Your task to perform on an android device: toggle javascript in the chrome app Image 0: 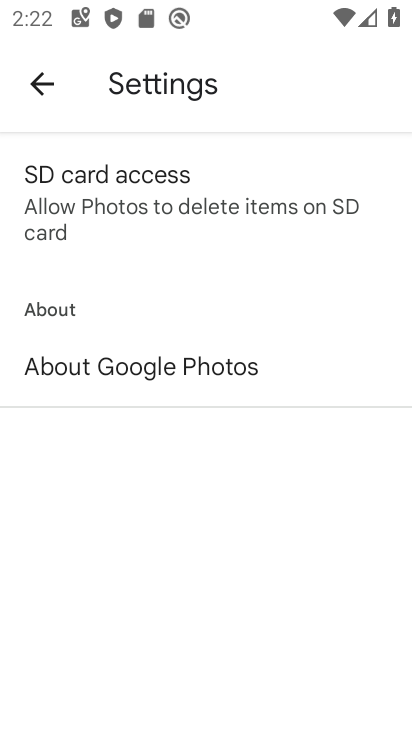
Step 0: press home button
Your task to perform on an android device: toggle javascript in the chrome app Image 1: 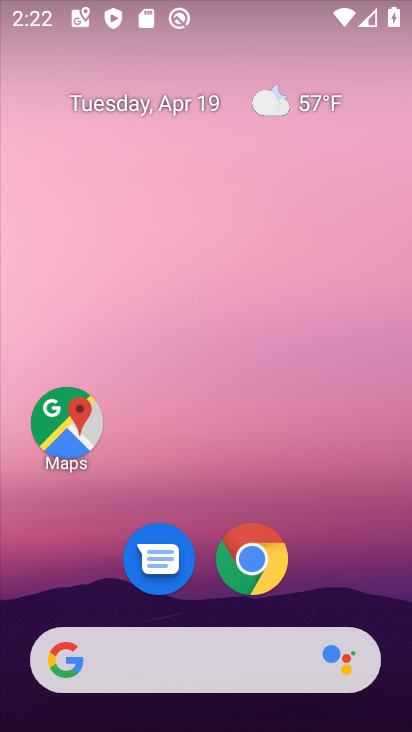
Step 1: click (248, 550)
Your task to perform on an android device: toggle javascript in the chrome app Image 2: 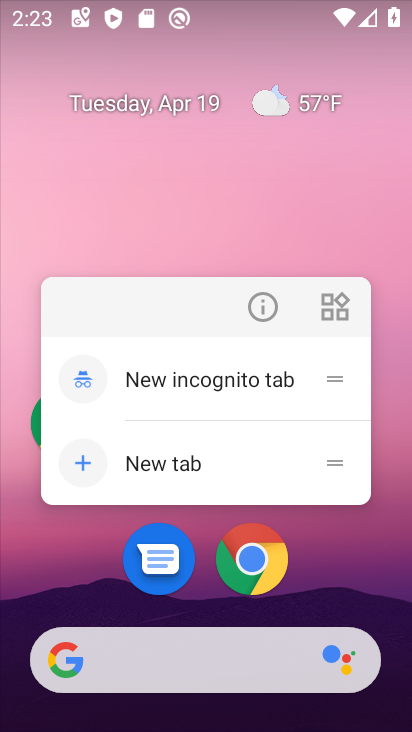
Step 2: click (215, 197)
Your task to perform on an android device: toggle javascript in the chrome app Image 3: 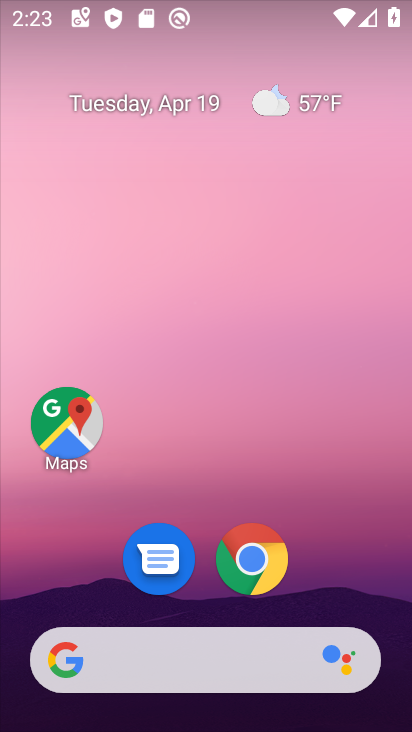
Step 3: click (247, 550)
Your task to perform on an android device: toggle javascript in the chrome app Image 4: 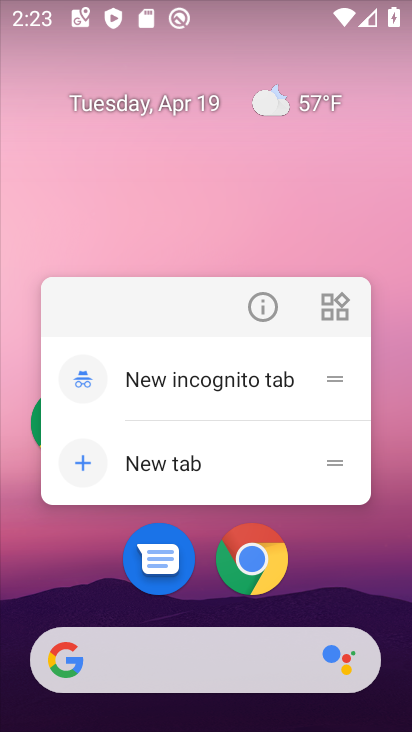
Step 4: click (355, 542)
Your task to perform on an android device: toggle javascript in the chrome app Image 5: 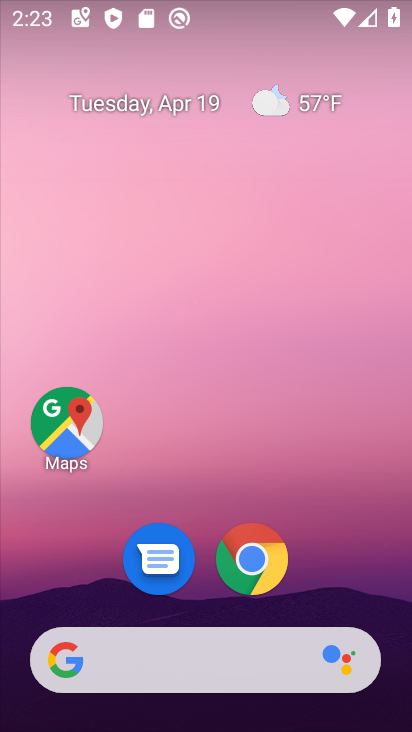
Step 5: drag from (311, 582) to (296, 82)
Your task to perform on an android device: toggle javascript in the chrome app Image 6: 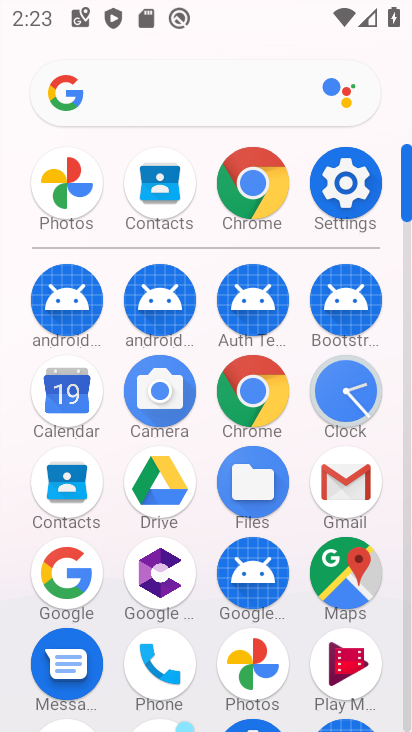
Step 6: click (248, 174)
Your task to perform on an android device: toggle javascript in the chrome app Image 7: 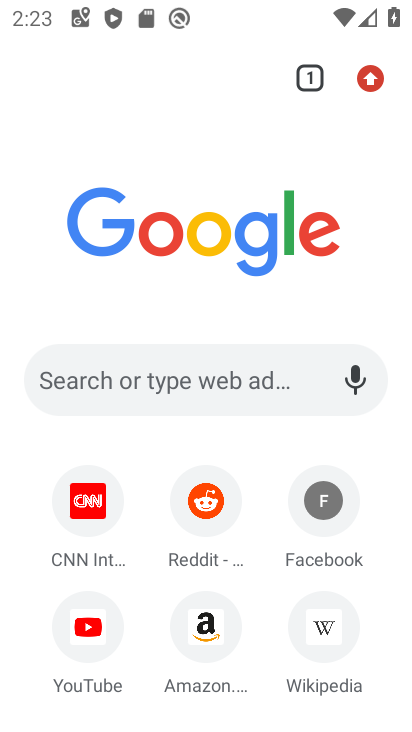
Step 7: click (371, 81)
Your task to perform on an android device: toggle javascript in the chrome app Image 8: 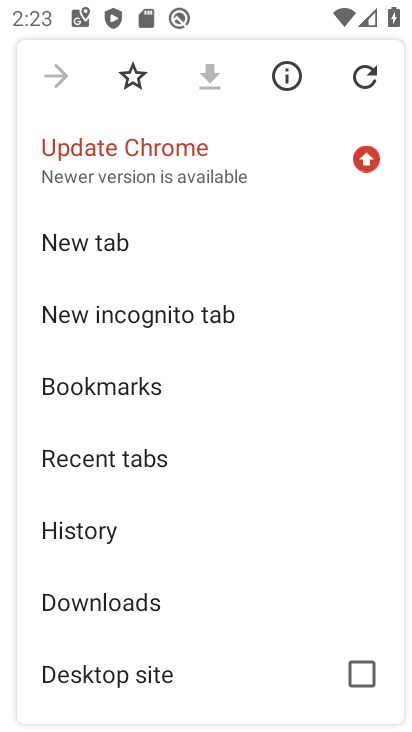
Step 8: drag from (168, 644) to (161, 187)
Your task to perform on an android device: toggle javascript in the chrome app Image 9: 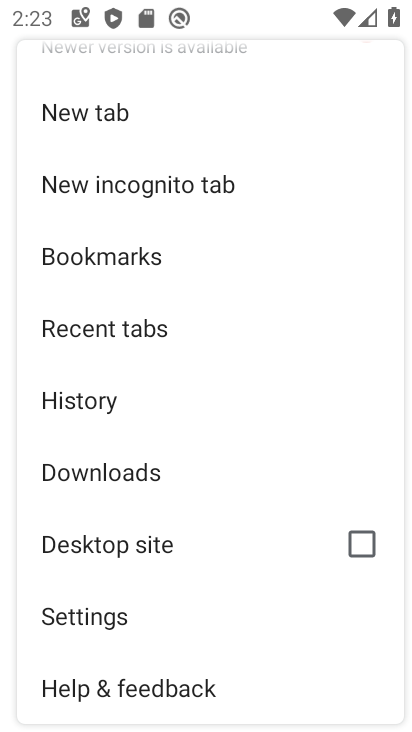
Step 9: click (143, 616)
Your task to perform on an android device: toggle javascript in the chrome app Image 10: 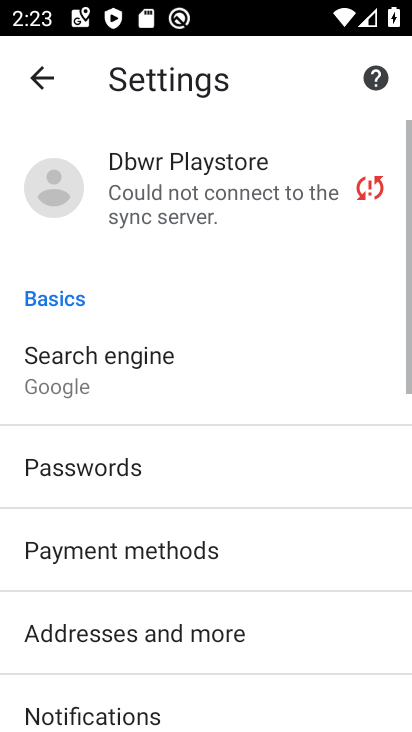
Step 10: drag from (228, 677) to (226, 164)
Your task to perform on an android device: toggle javascript in the chrome app Image 11: 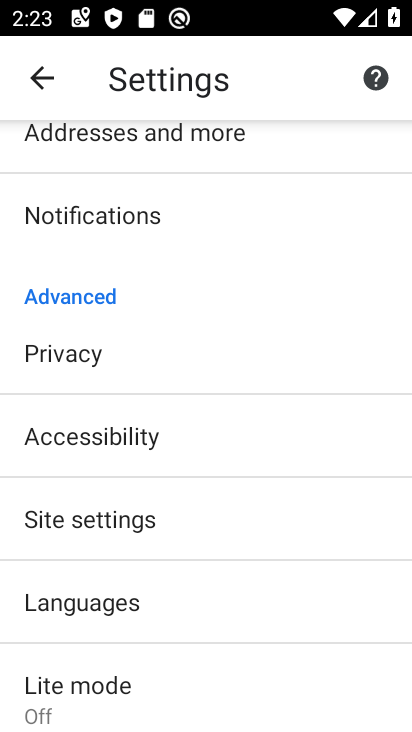
Step 11: click (174, 519)
Your task to perform on an android device: toggle javascript in the chrome app Image 12: 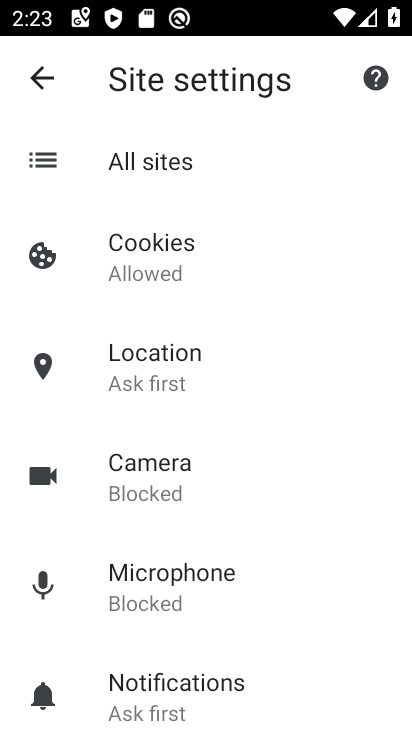
Step 12: drag from (252, 648) to (259, 215)
Your task to perform on an android device: toggle javascript in the chrome app Image 13: 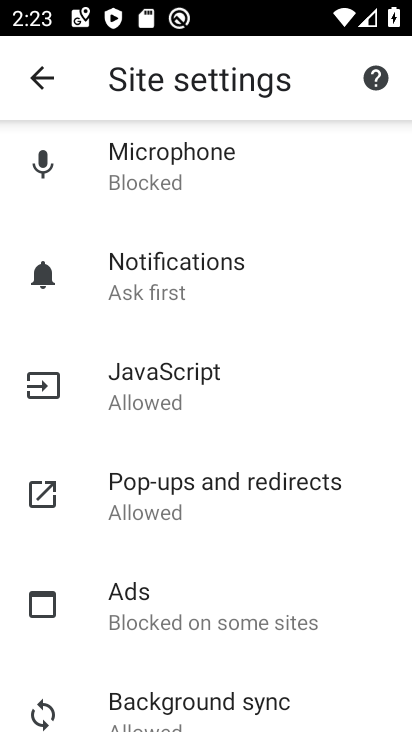
Step 13: click (203, 386)
Your task to perform on an android device: toggle javascript in the chrome app Image 14: 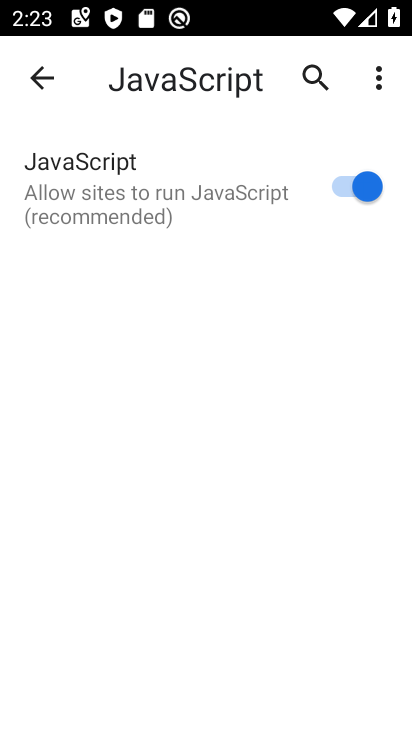
Step 14: click (341, 184)
Your task to perform on an android device: toggle javascript in the chrome app Image 15: 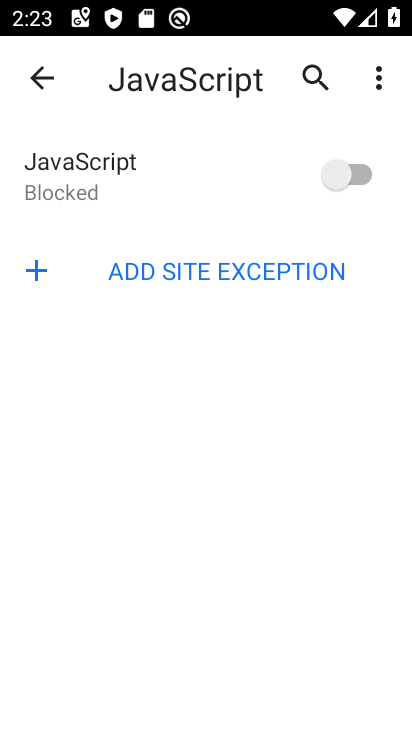
Step 15: task complete